Your task to perform on an android device: star an email in the gmail app Image 0: 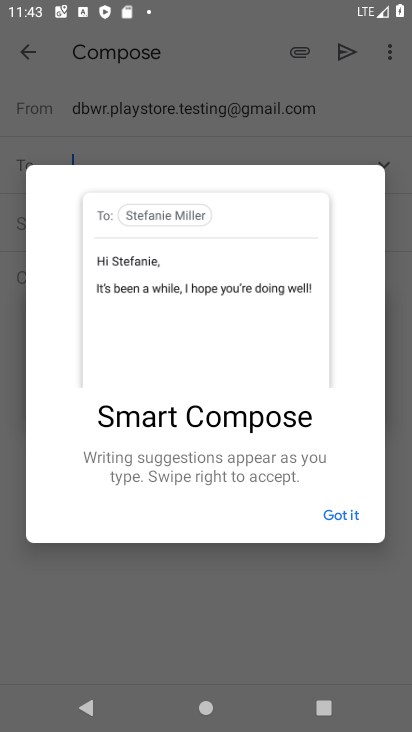
Step 0: press home button
Your task to perform on an android device: star an email in the gmail app Image 1: 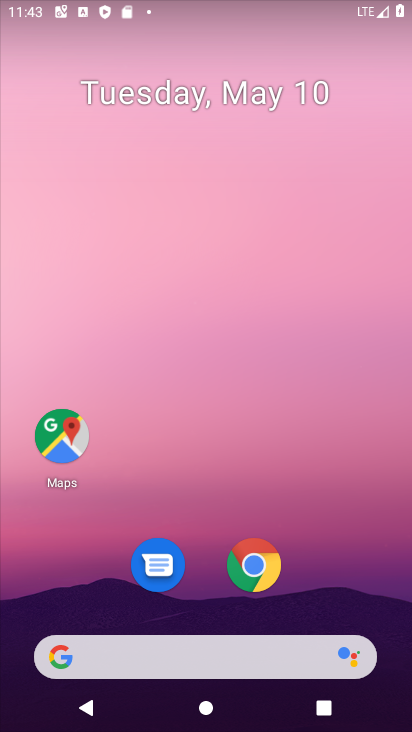
Step 1: drag from (7, 628) to (169, 140)
Your task to perform on an android device: star an email in the gmail app Image 2: 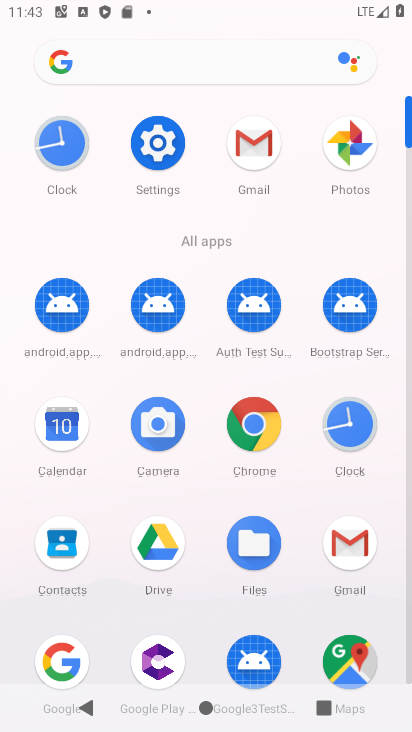
Step 2: click (241, 150)
Your task to perform on an android device: star an email in the gmail app Image 3: 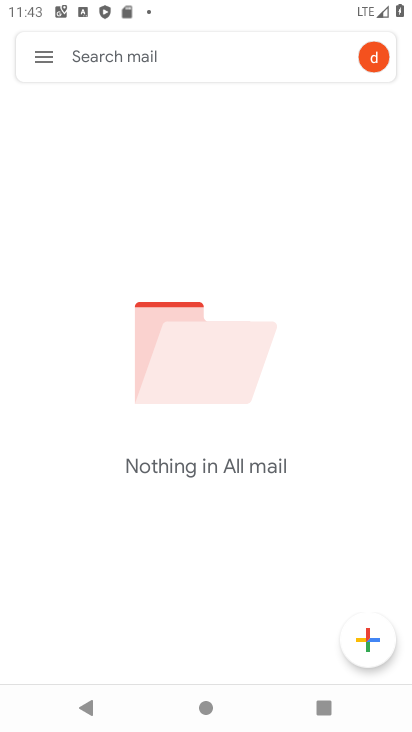
Step 3: click (38, 55)
Your task to perform on an android device: star an email in the gmail app Image 4: 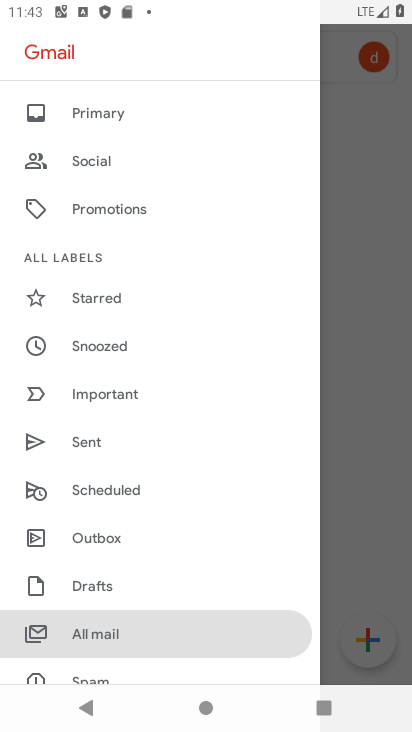
Step 4: click (127, 646)
Your task to perform on an android device: star an email in the gmail app Image 5: 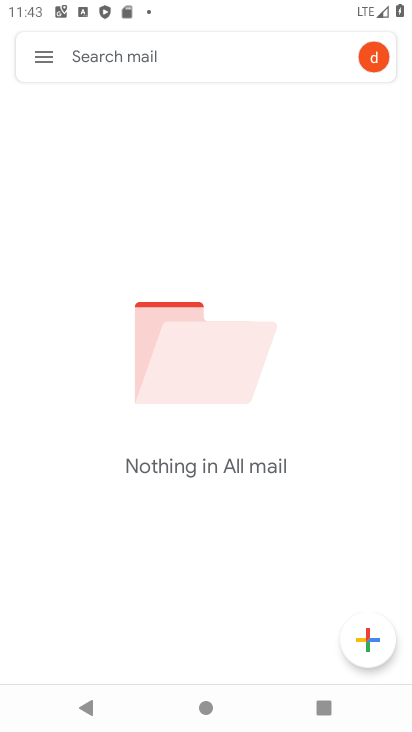
Step 5: task complete